Your task to perform on an android device: open a new tab in the chrome app Image 0: 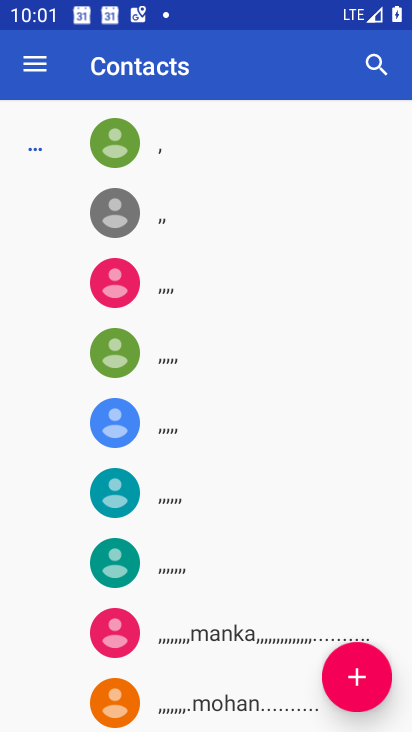
Step 0: press home button
Your task to perform on an android device: open a new tab in the chrome app Image 1: 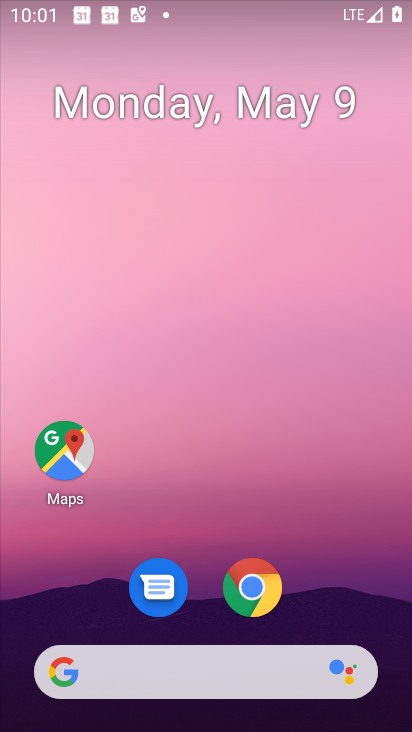
Step 1: click (256, 586)
Your task to perform on an android device: open a new tab in the chrome app Image 2: 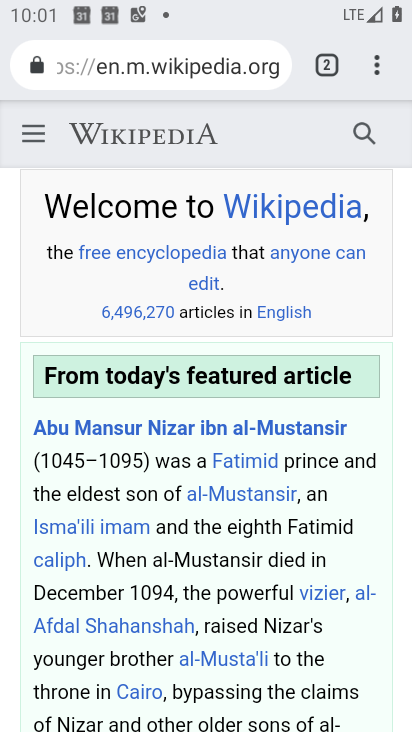
Step 2: click (372, 67)
Your task to perform on an android device: open a new tab in the chrome app Image 3: 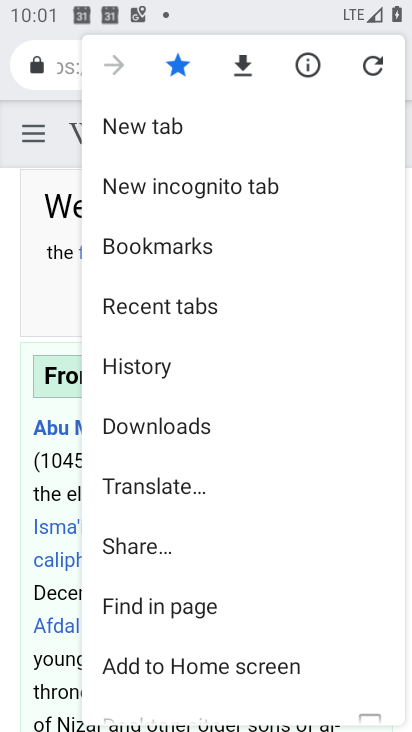
Step 3: click (151, 127)
Your task to perform on an android device: open a new tab in the chrome app Image 4: 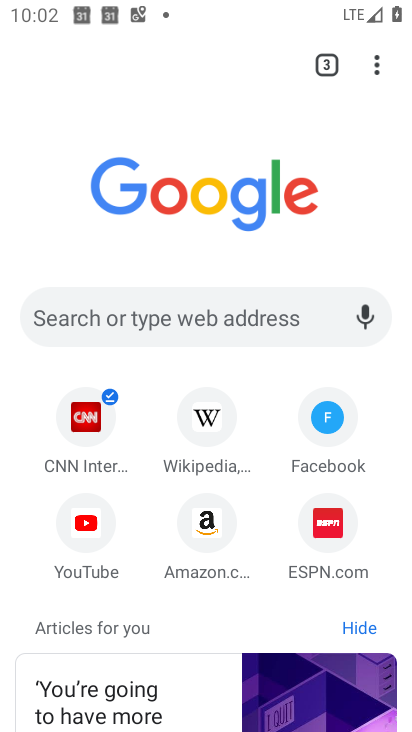
Step 4: task complete